Your task to perform on an android device: Open maps Image 0: 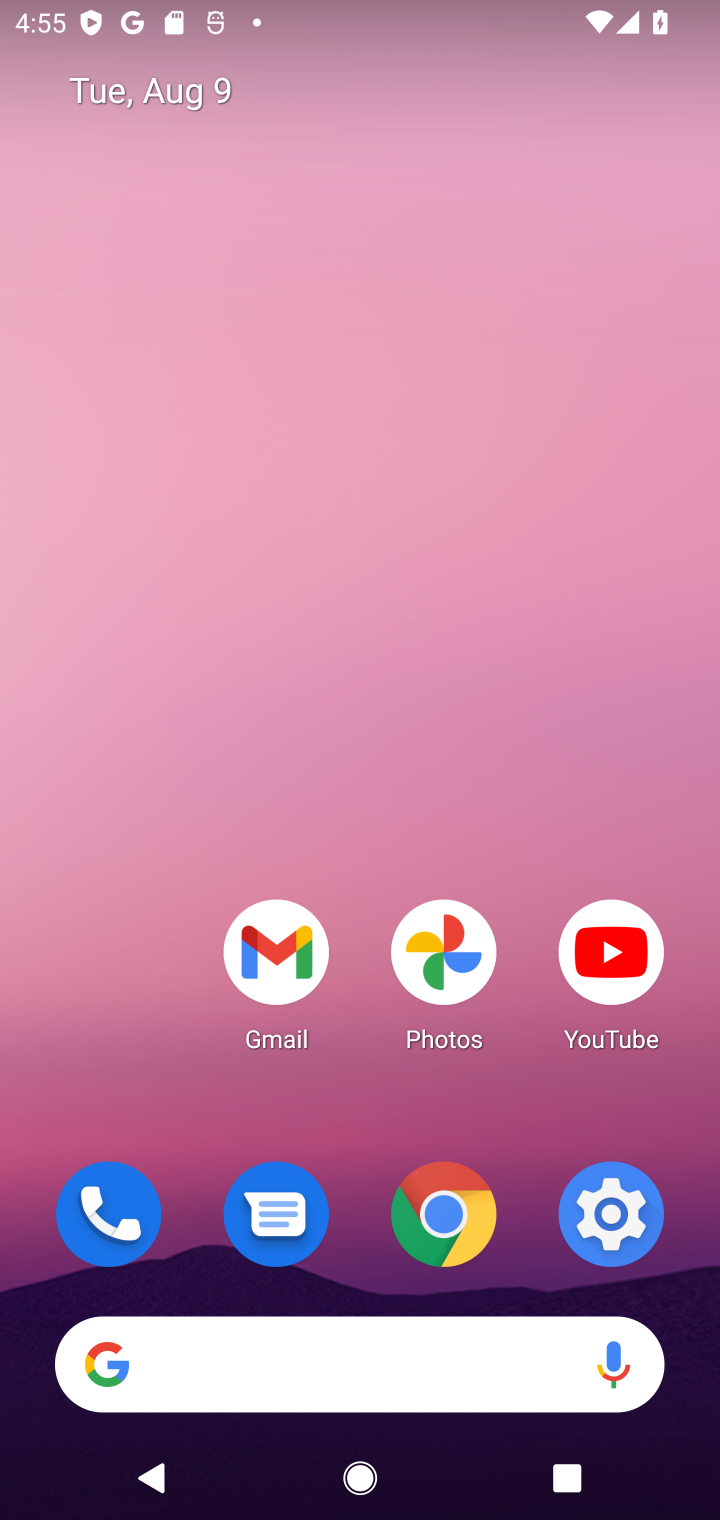
Step 0: drag from (463, 1425) to (270, 365)
Your task to perform on an android device: Open maps Image 1: 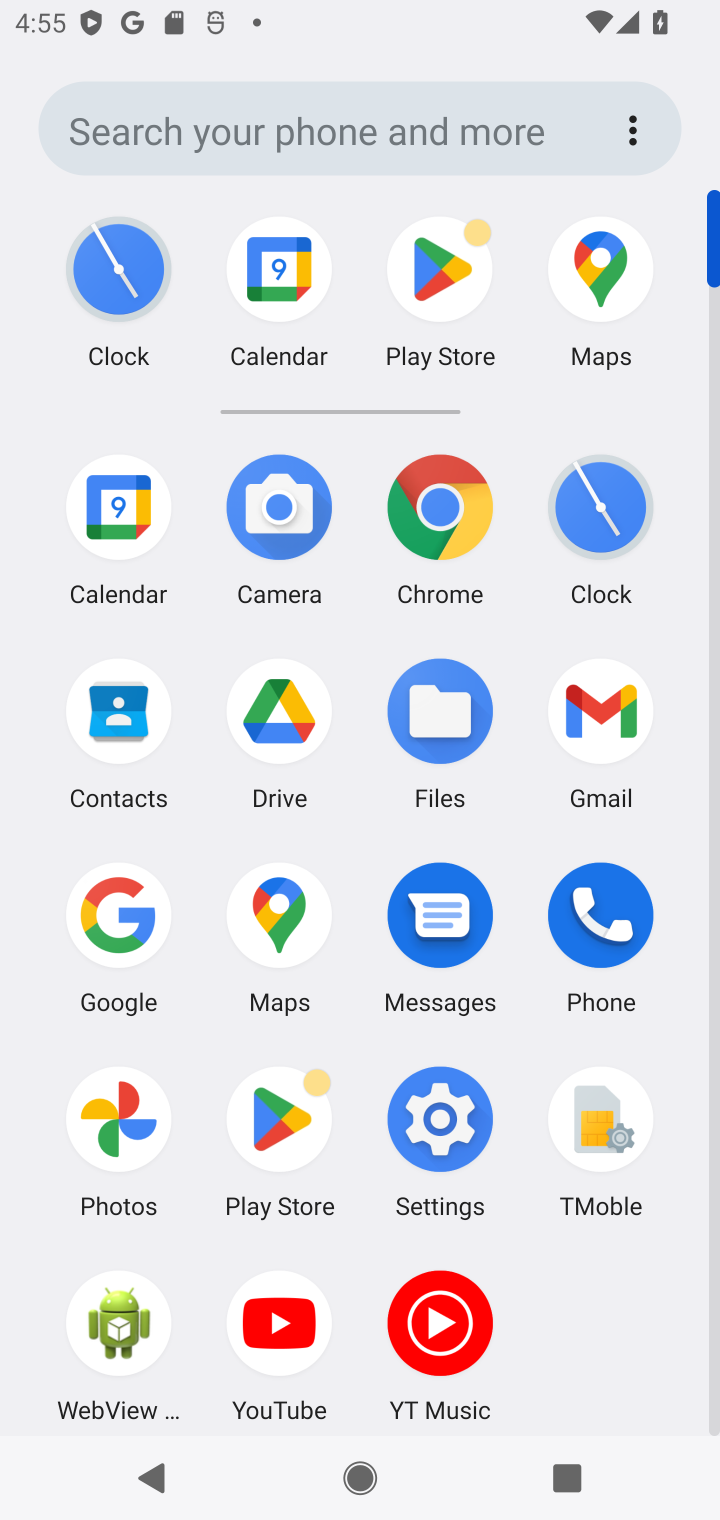
Step 1: click (595, 260)
Your task to perform on an android device: Open maps Image 2: 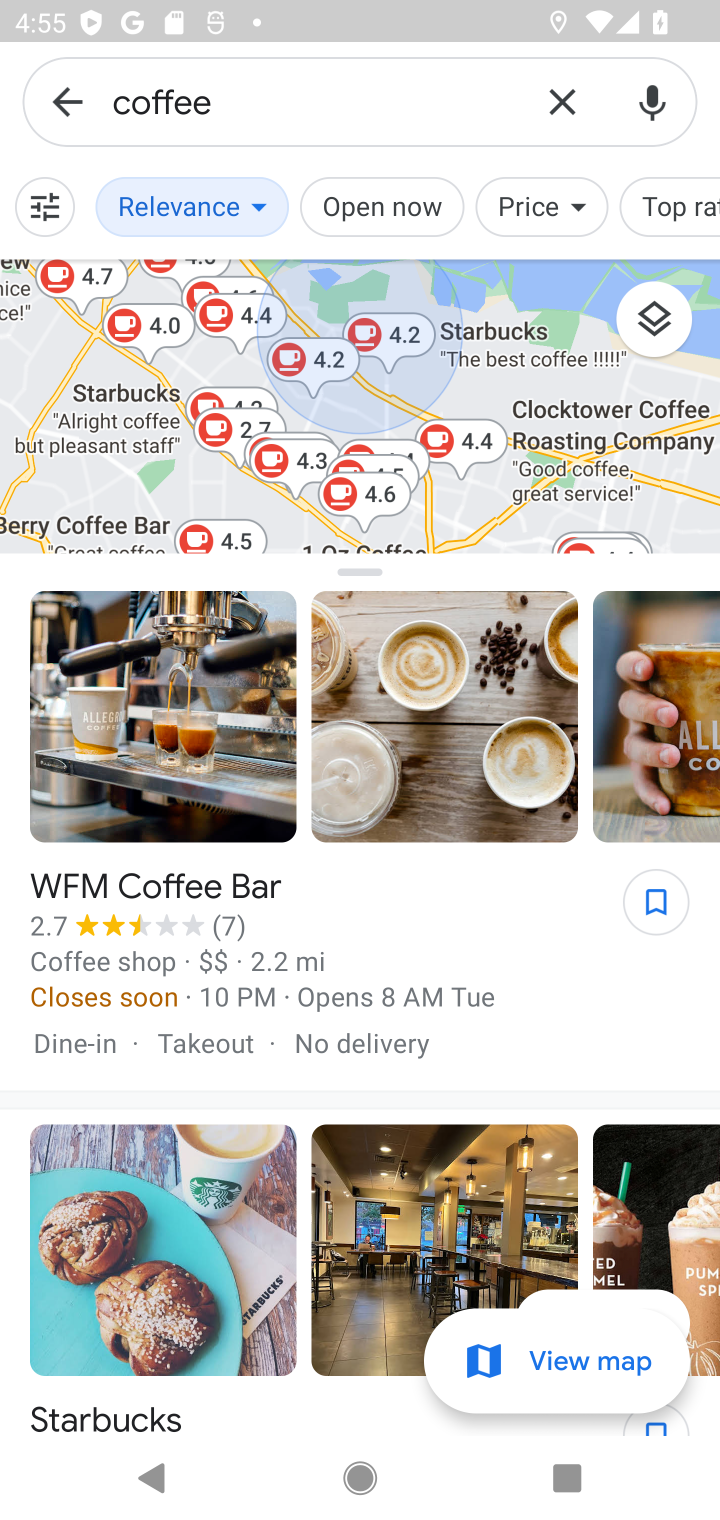
Step 2: click (66, 105)
Your task to perform on an android device: Open maps Image 3: 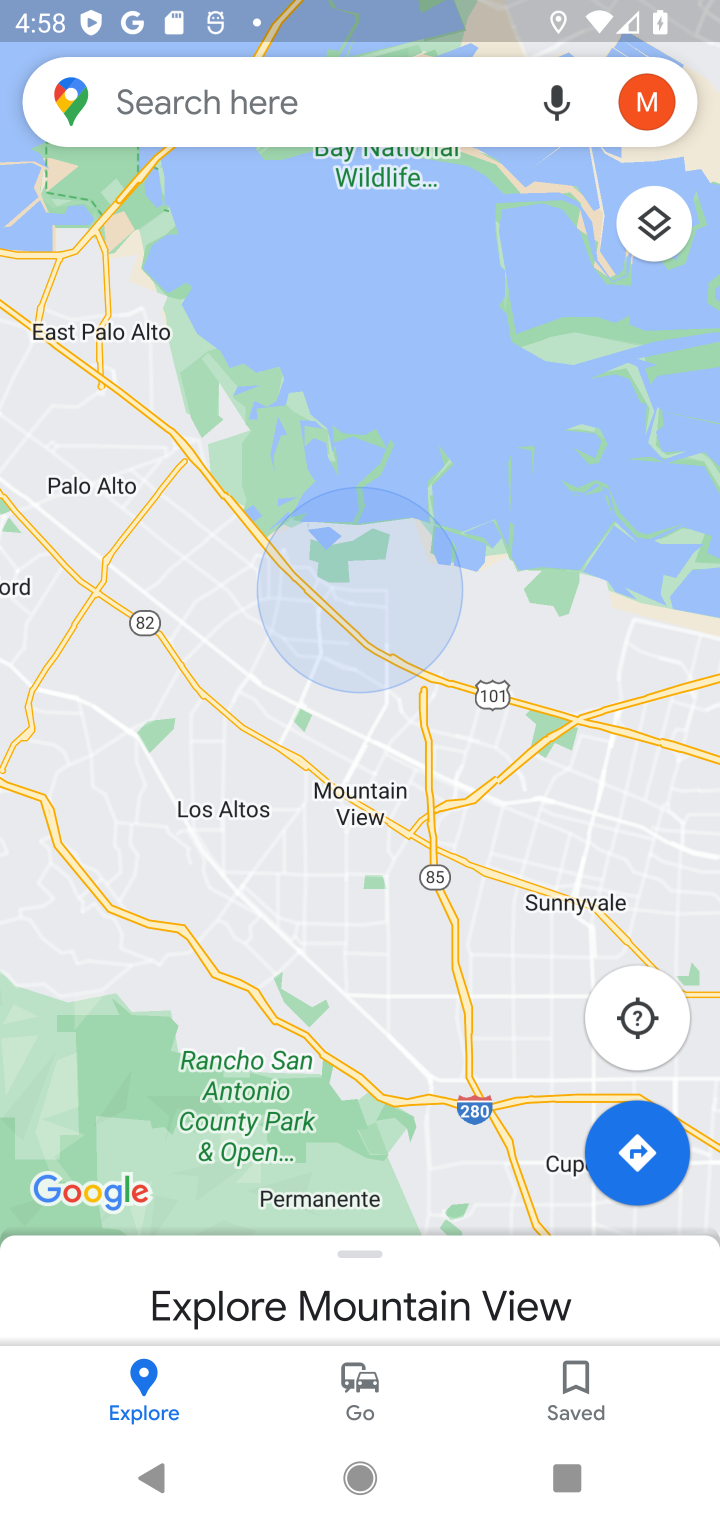
Step 3: task complete